Your task to perform on an android device: Open network settings Image 0: 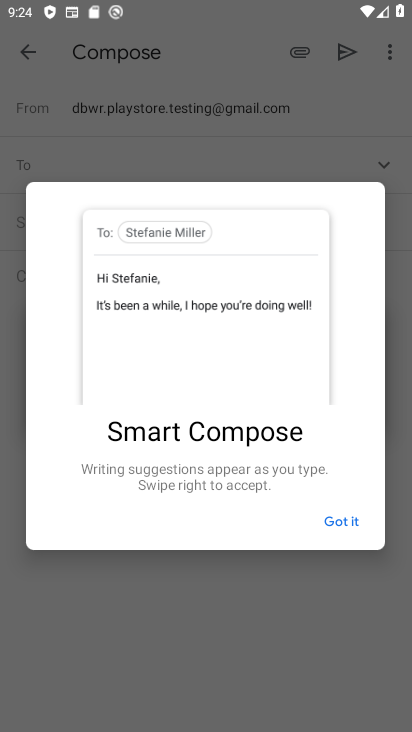
Step 0: press home button
Your task to perform on an android device: Open network settings Image 1: 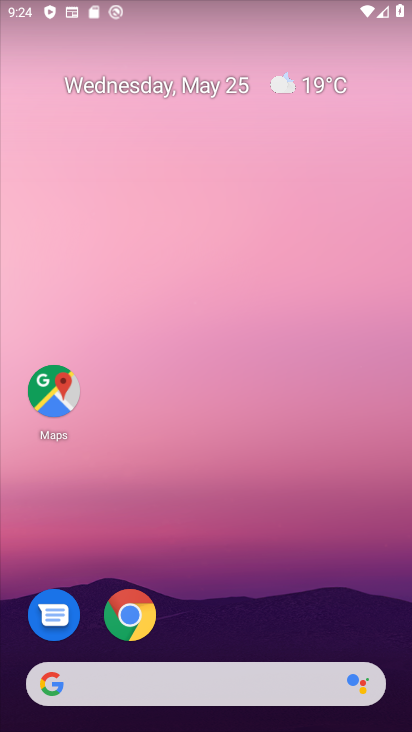
Step 1: drag from (226, 704) to (202, 77)
Your task to perform on an android device: Open network settings Image 2: 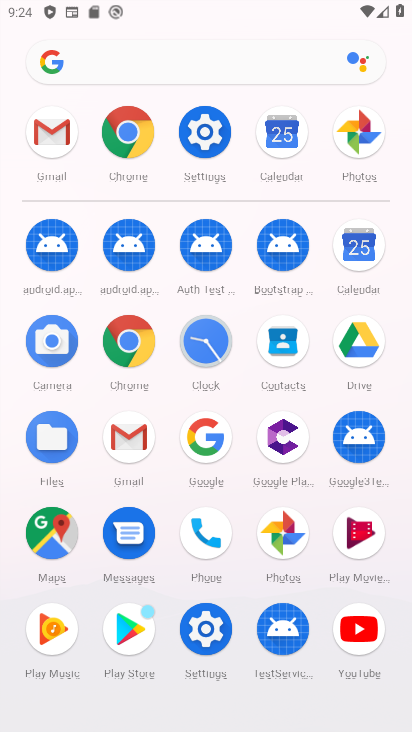
Step 2: click (220, 119)
Your task to perform on an android device: Open network settings Image 3: 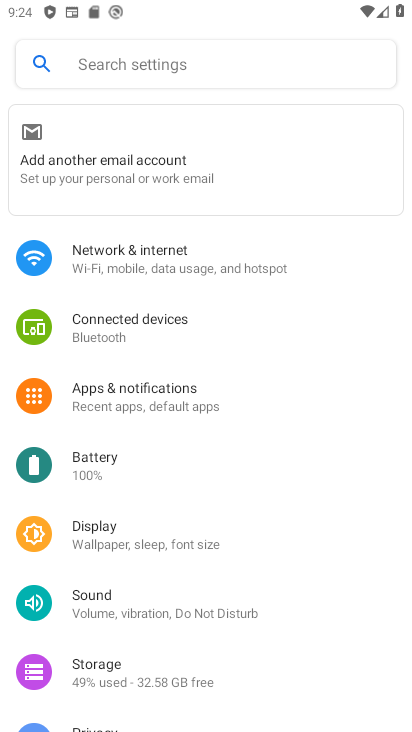
Step 3: click (142, 250)
Your task to perform on an android device: Open network settings Image 4: 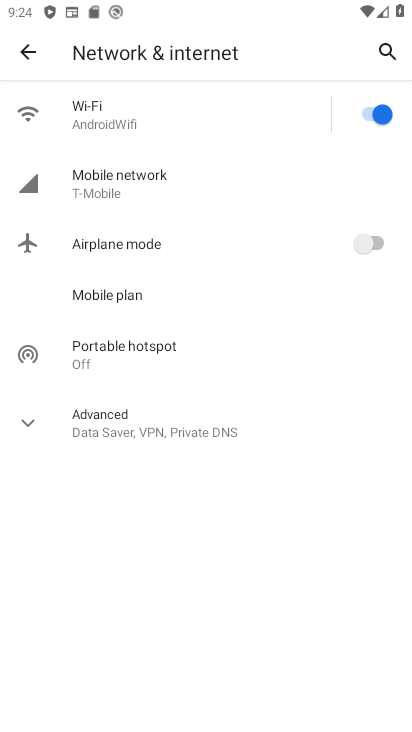
Step 4: task complete